Your task to perform on an android device: What is the recent news? Image 0: 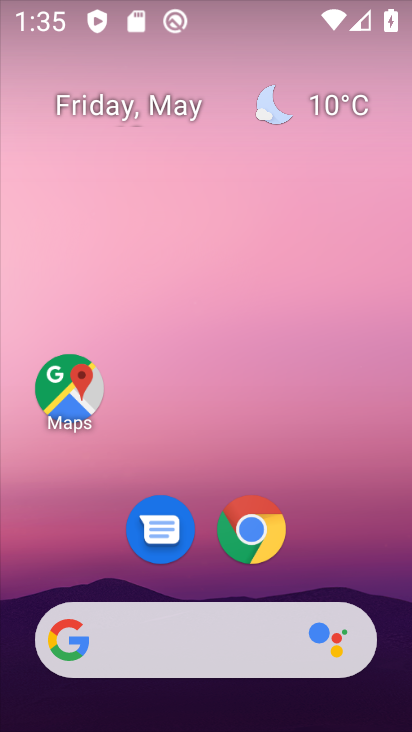
Step 0: drag from (18, 247) to (411, 342)
Your task to perform on an android device: What is the recent news? Image 1: 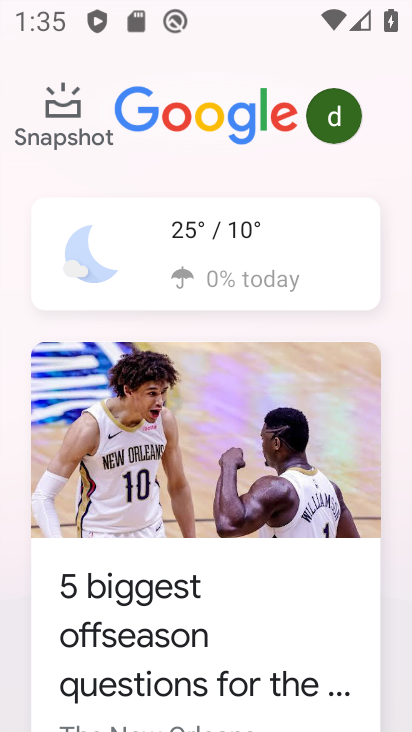
Step 1: task complete